Your task to perform on an android device: check android version Image 0: 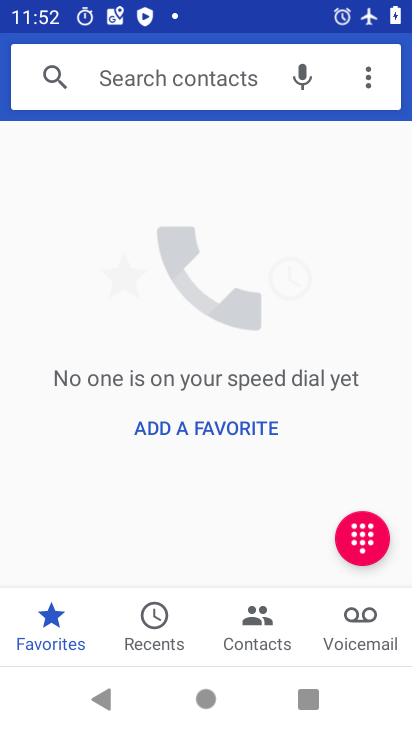
Step 0: press home button
Your task to perform on an android device: check android version Image 1: 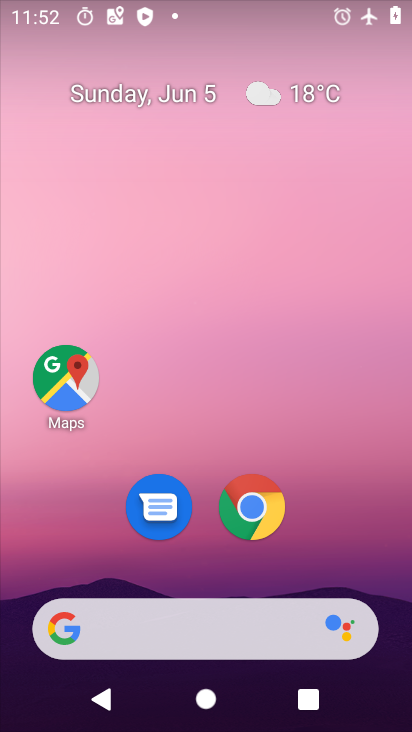
Step 1: drag from (222, 721) to (215, 79)
Your task to perform on an android device: check android version Image 2: 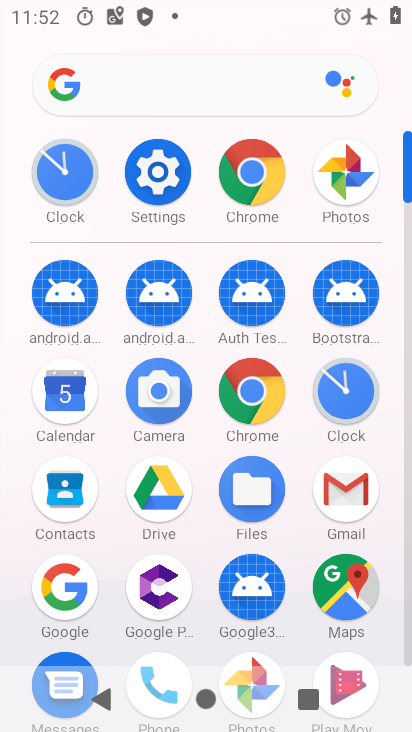
Step 2: click (160, 175)
Your task to perform on an android device: check android version Image 3: 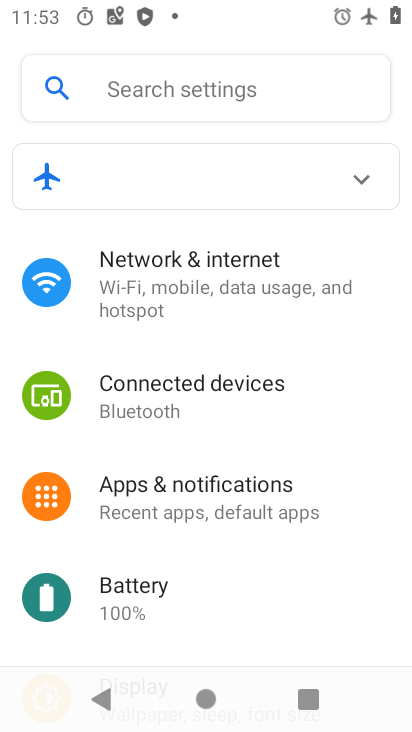
Step 3: drag from (196, 632) to (192, 222)
Your task to perform on an android device: check android version Image 4: 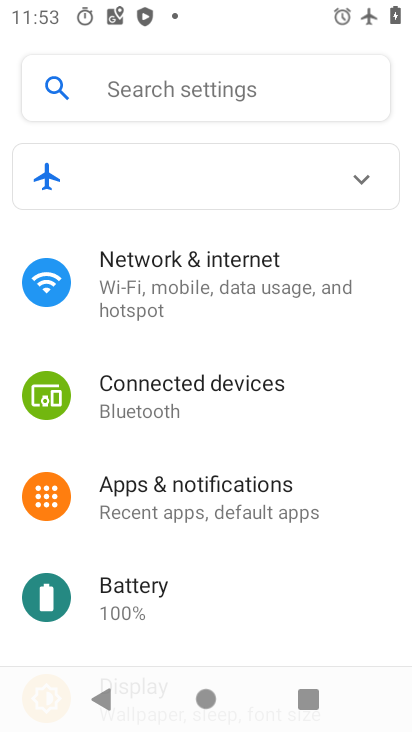
Step 4: drag from (173, 639) to (175, 347)
Your task to perform on an android device: check android version Image 5: 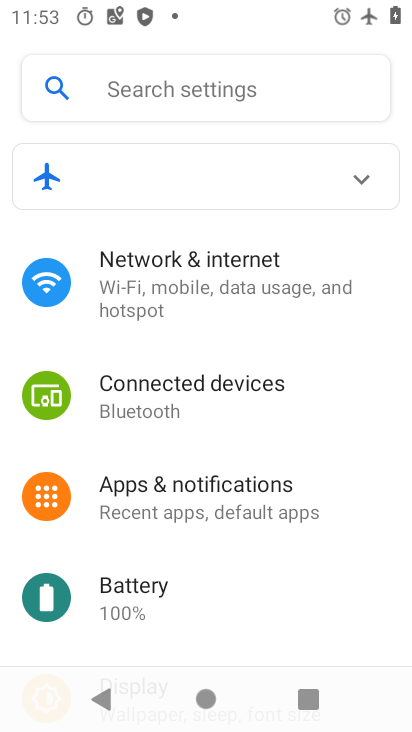
Step 5: drag from (161, 624) to (164, 230)
Your task to perform on an android device: check android version Image 6: 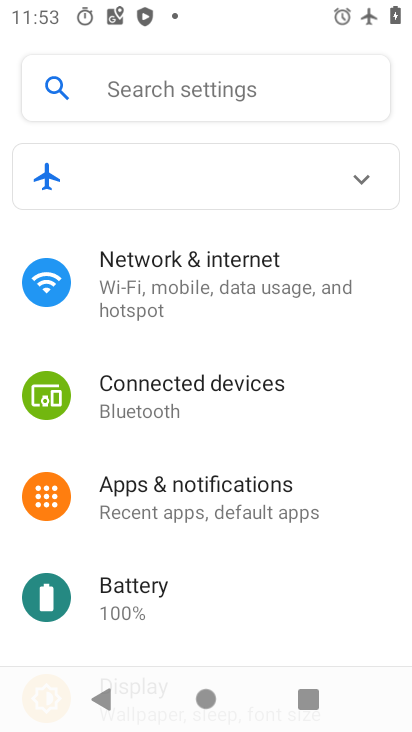
Step 6: drag from (153, 647) to (156, 289)
Your task to perform on an android device: check android version Image 7: 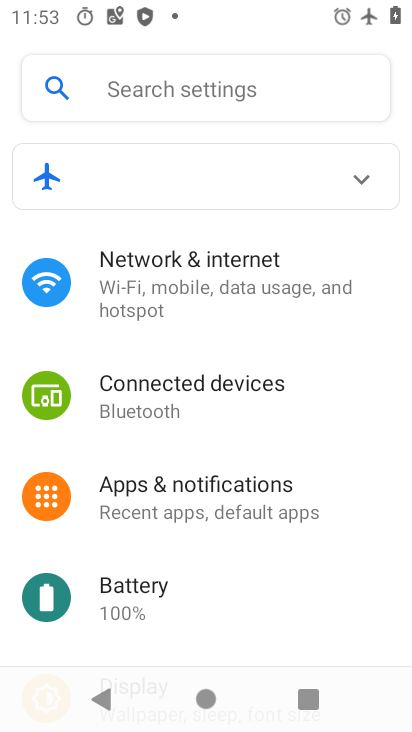
Step 7: drag from (204, 645) to (207, 225)
Your task to perform on an android device: check android version Image 8: 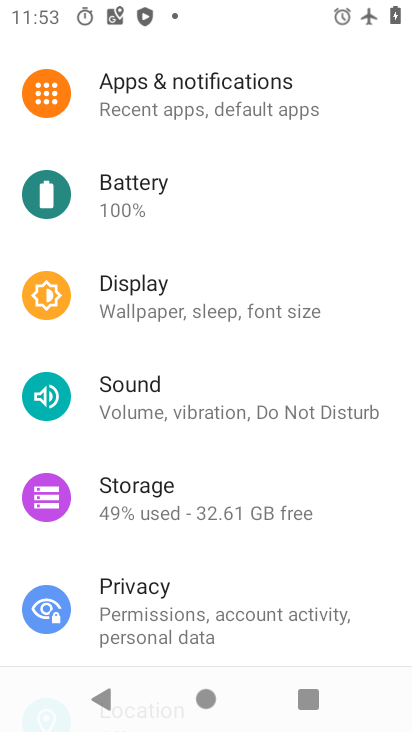
Step 8: drag from (202, 622) to (206, 190)
Your task to perform on an android device: check android version Image 9: 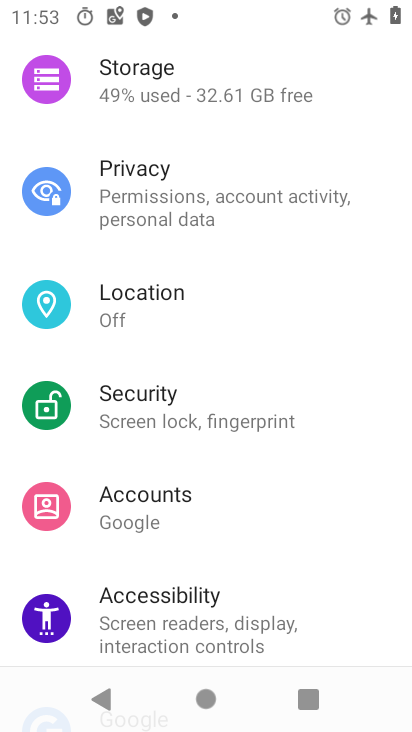
Step 9: drag from (199, 648) to (208, 239)
Your task to perform on an android device: check android version Image 10: 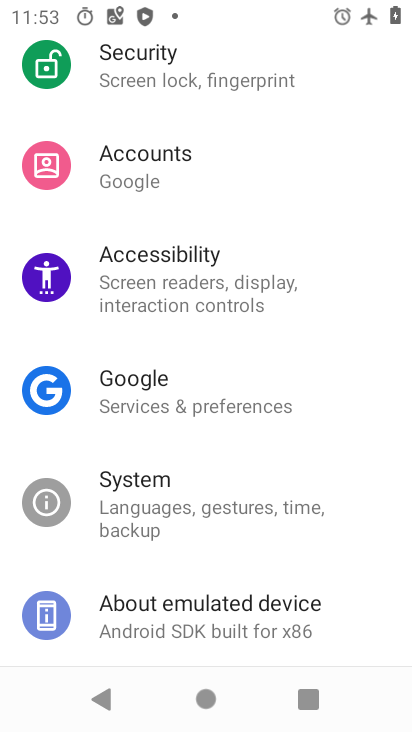
Step 10: drag from (202, 639) to (214, 195)
Your task to perform on an android device: check android version Image 11: 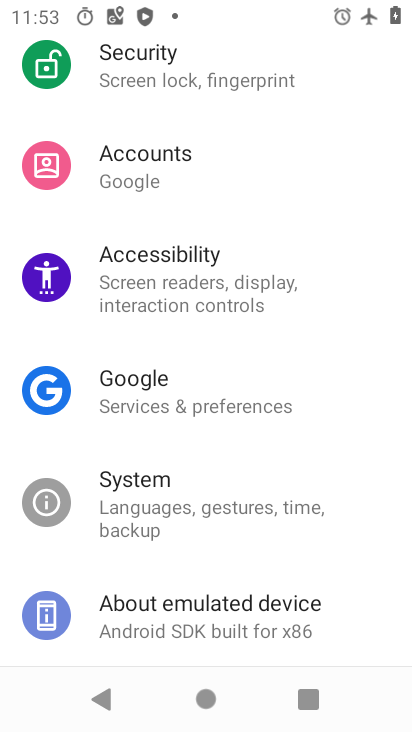
Step 11: click (202, 617)
Your task to perform on an android device: check android version Image 12: 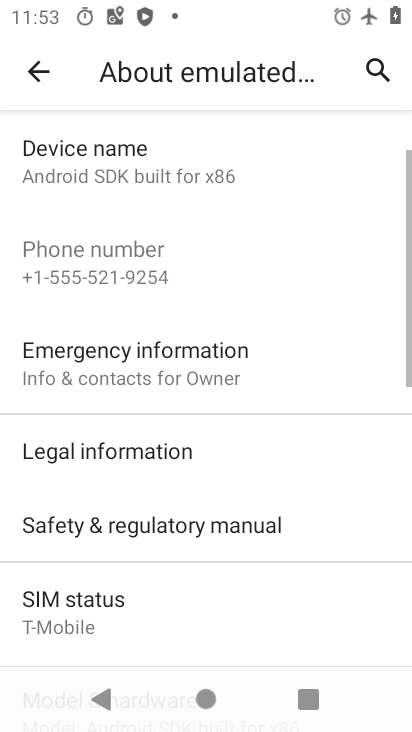
Step 12: drag from (218, 637) to (216, 184)
Your task to perform on an android device: check android version Image 13: 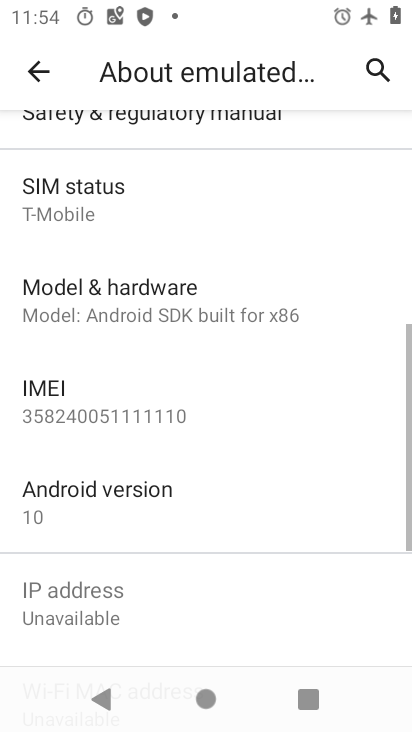
Step 13: drag from (191, 589) to (191, 205)
Your task to perform on an android device: check android version Image 14: 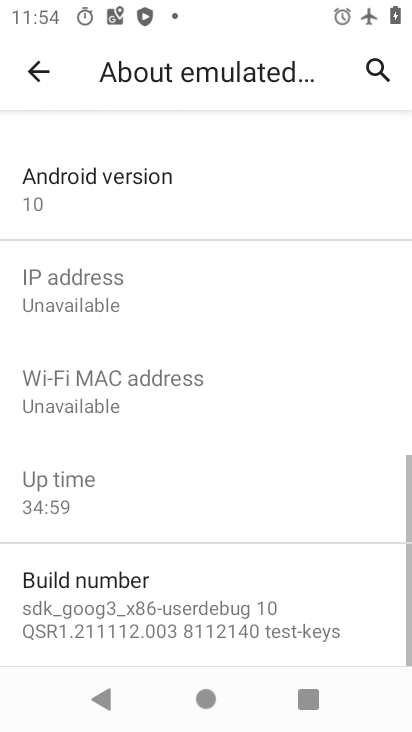
Step 14: click (137, 181)
Your task to perform on an android device: check android version Image 15: 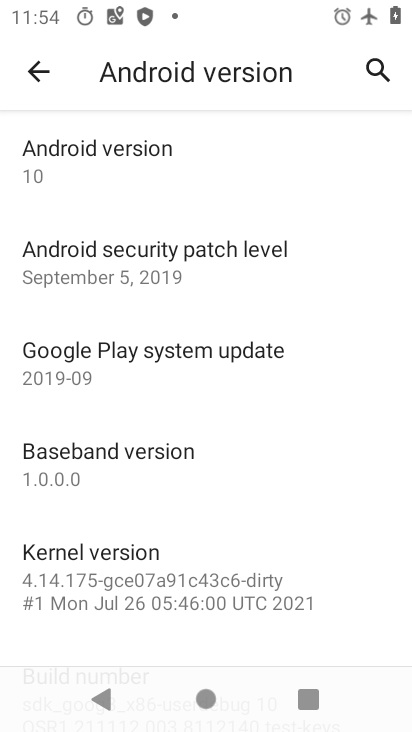
Step 15: task complete